Your task to perform on an android device: turn off airplane mode Image 0: 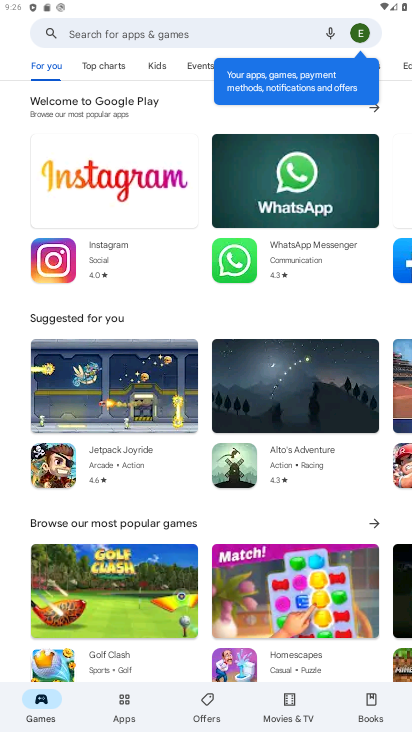
Step 0: click (248, 258)
Your task to perform on an android device: turn off airplane mode Image 1: 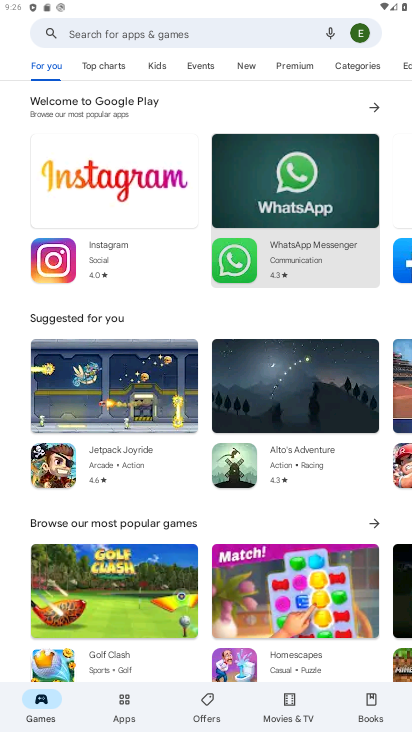
Step 1: press home button
Your task to perform on an android device: turn off airplane mode Image 2: 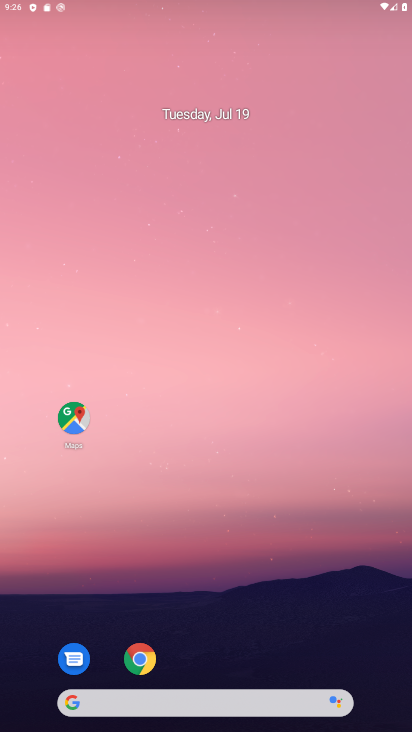
Step 2: drag from (224, 392) to (263, 66)
Your task to perform on an android device: turn off airplane mode Image 3: 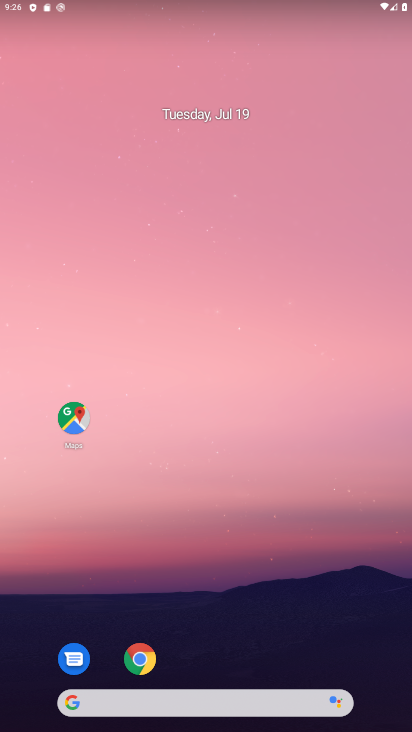
Step 3: drag from (229, 604) to (229, 174)
Your task to perform on an android device: turn off airplane mode Image 4: 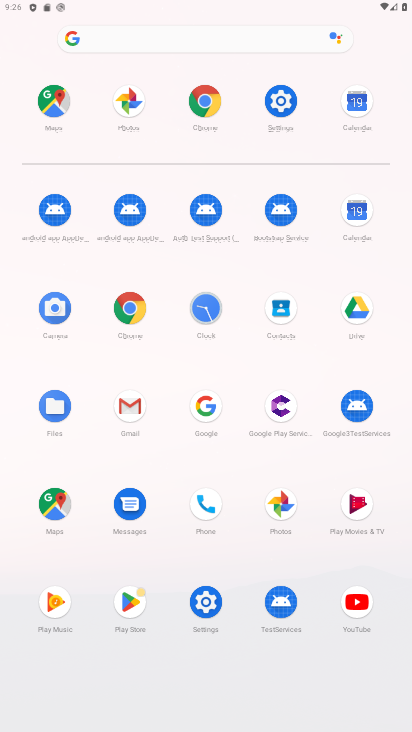
Step 4: click (278, 108)
Your task to perform on an android device: turn off airplane mode Image 5: 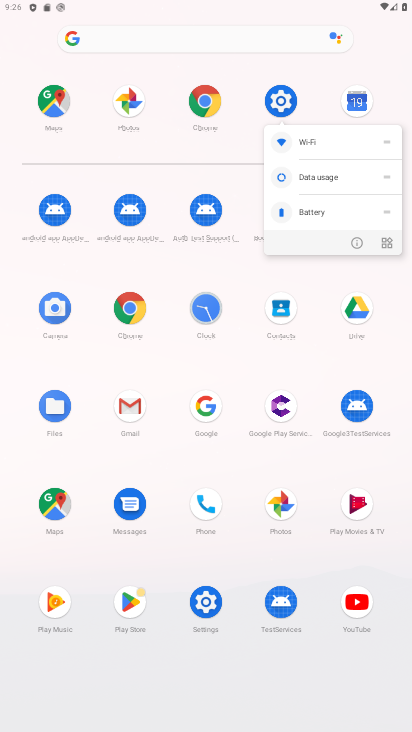
Step 5: click (360, 239)
Your task to perform on an android device: turn off airplane mode Image 6: 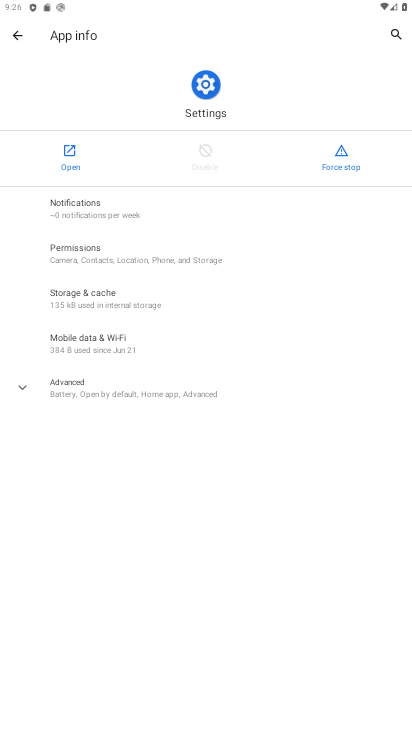
Step 6: click (65, 162)
Your task to perform on an android device: turn off airplane mode Image 7: 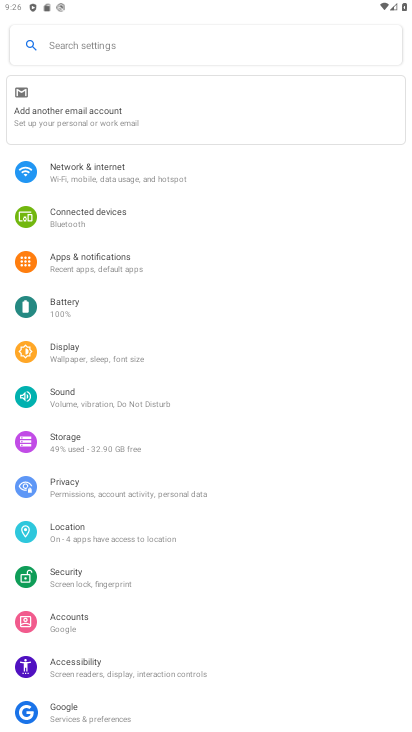
Step 7: click (87, 171)
Your task to perform on an android device: turn off airplane mode Image 8: 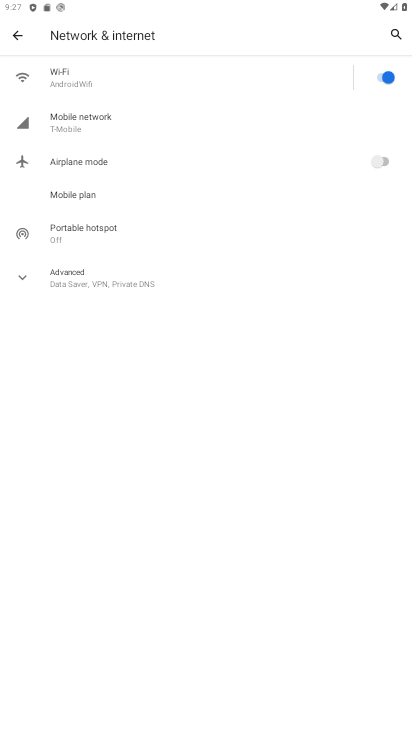
Step 8: task complete